Your task to perform on an android device: remove spam from my inbox in the gmail app Image 0: 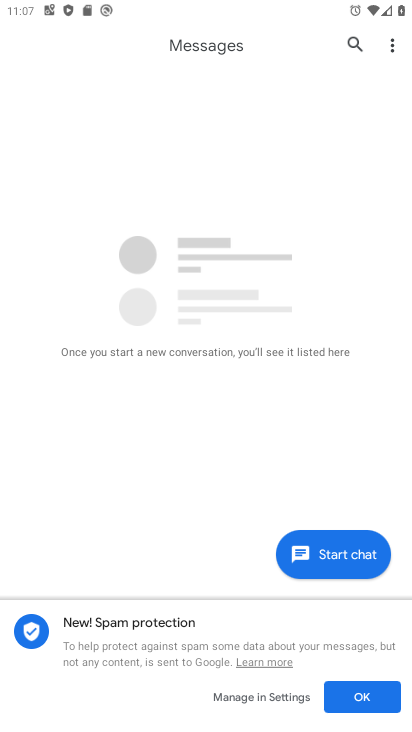
Step 0: press home button
Your task to perform on an android device: remove spam from my inbox in the gmail app Image 1: 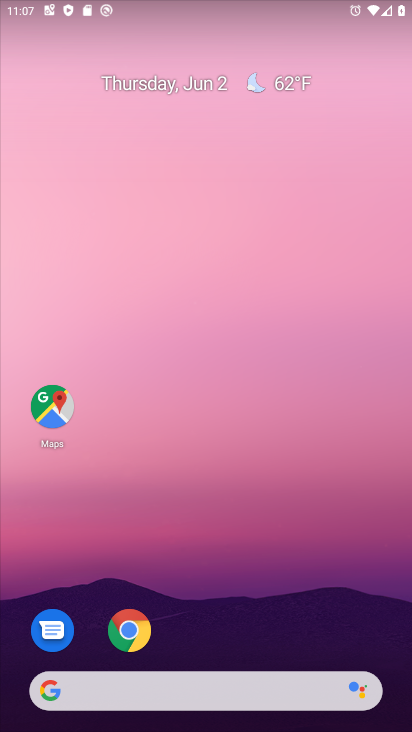
Step 1: drag from (152, 691) to (283, 174)
Your task to perform on an android device: remove spam from my inbox in the gmail app Image 2: 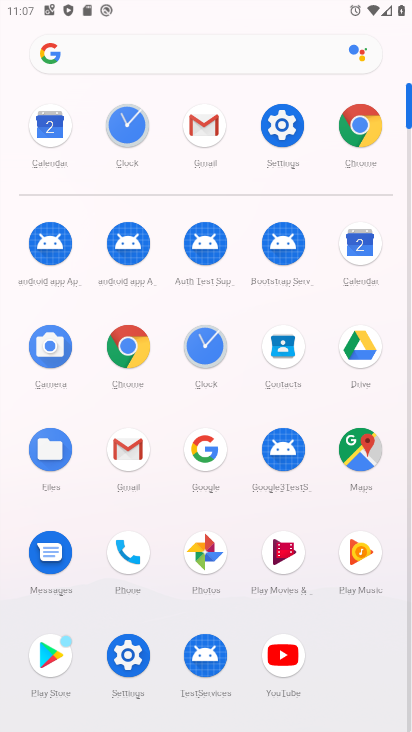
Step 2: click (203, 117)
Your task to perform on an android device: remove spam from my inbox in the gmail app Image 3: 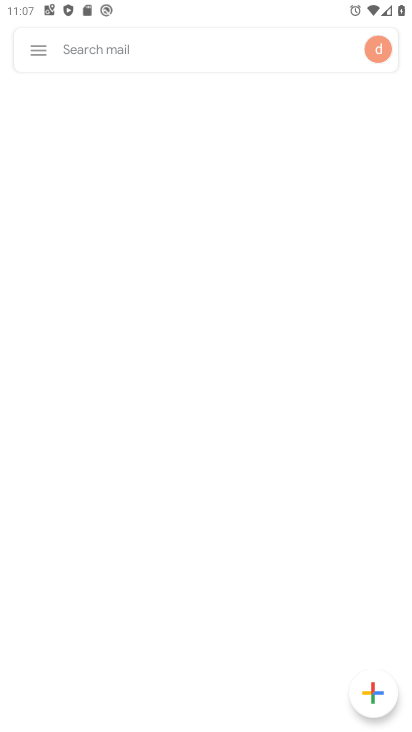
Step 3: click (32, 49)
Your task to perform on an android device: remove spam from my inbox in the gmail app Image 4: 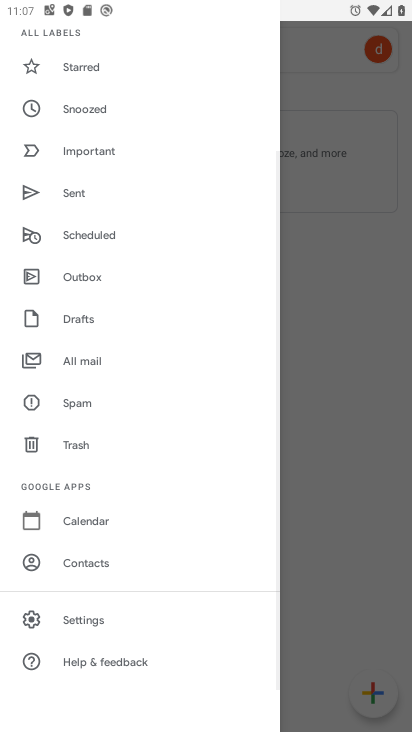
Step 4: click (82, 404)
Your task to perform on an android device: remove spam from my inbox in the gmail app Image 5: 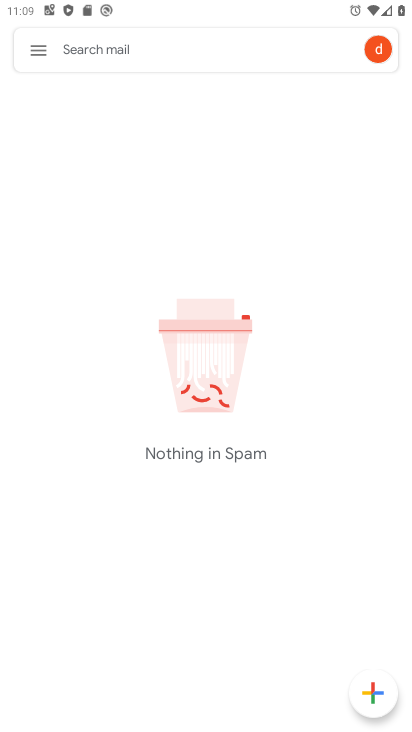
Step 5: task complete